Your task to perform on an android device: Go to internet settings Image 0: 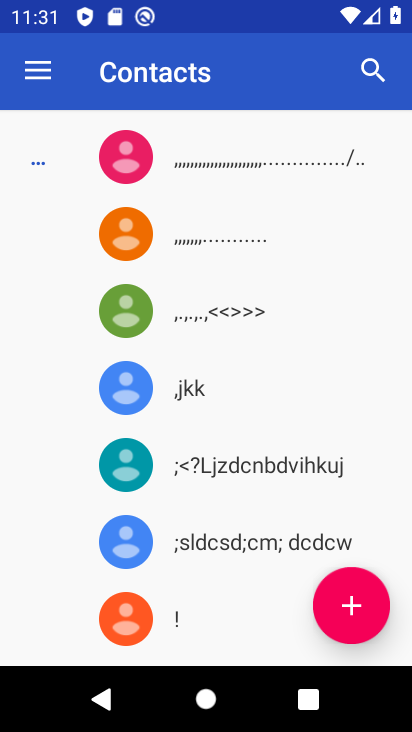
Step 0: press home button
Your task to perform on an android device: Go to internet settings Image 1: 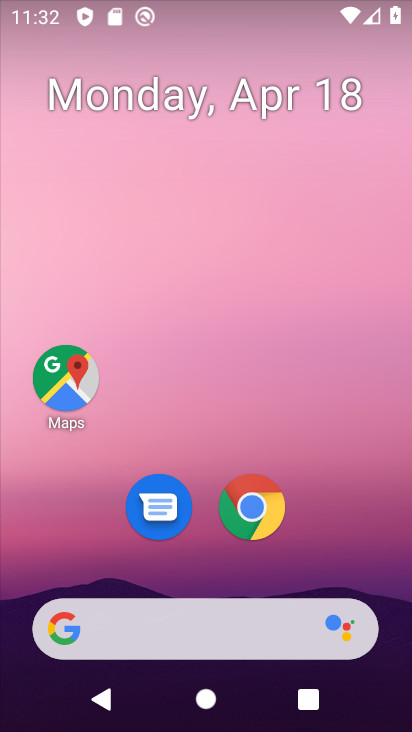
Step 1: drag from (322, 564) to (320, 166)
Your task to perform on an android device: Go to internet settings Image 2: 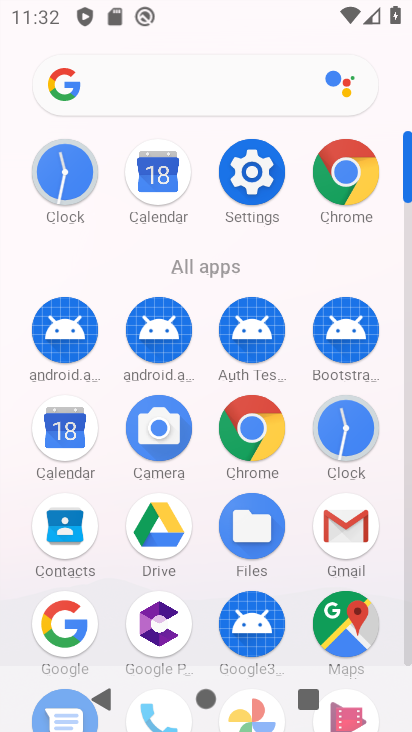
Step 2: click (257, 190)
Your task to perform on an android device: Go to internet settings Image 3: 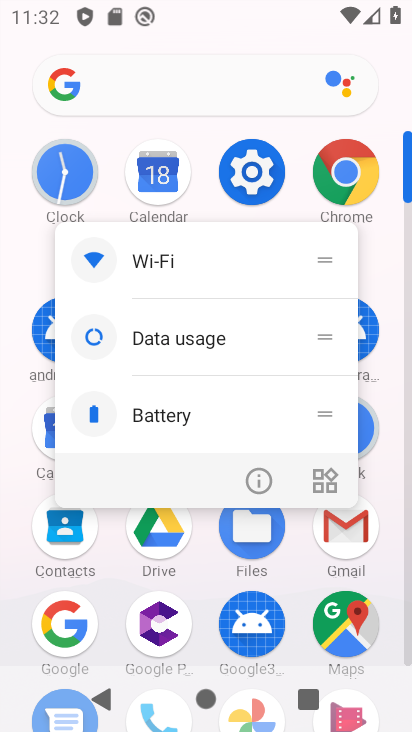
Step 3: click (257, 190)
Your task to perform on an android device: Go to internet settings Image 4: 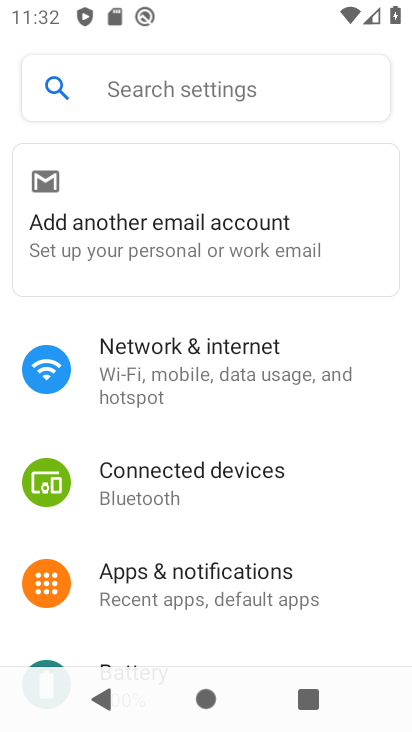
Step 4: click (252, 367)
Your task to perform on an android device: Go to internet settings Image 5: 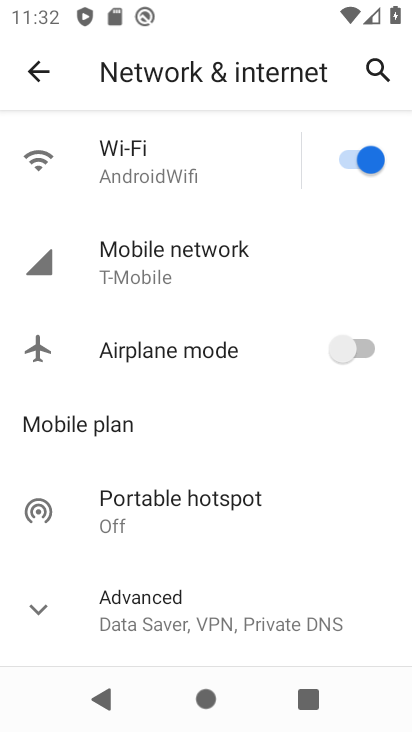
Step 5: task complete